Your task to perform on an android device: choose inbox layout in the gmail app Image 0: 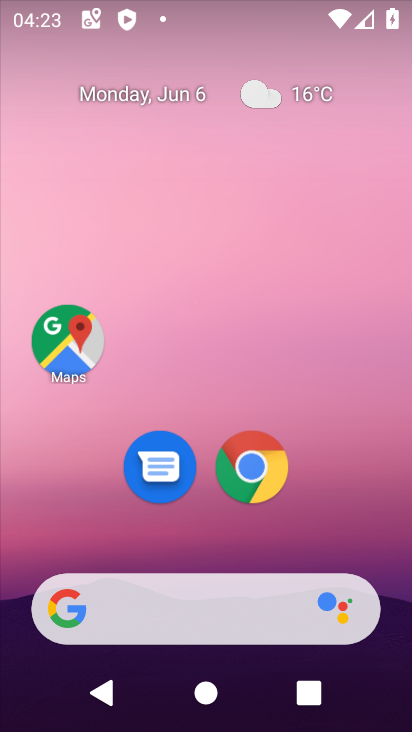
Step 0: press home button
Your task to perform on an android device: choose inbox layout in the gmail app Image 1: 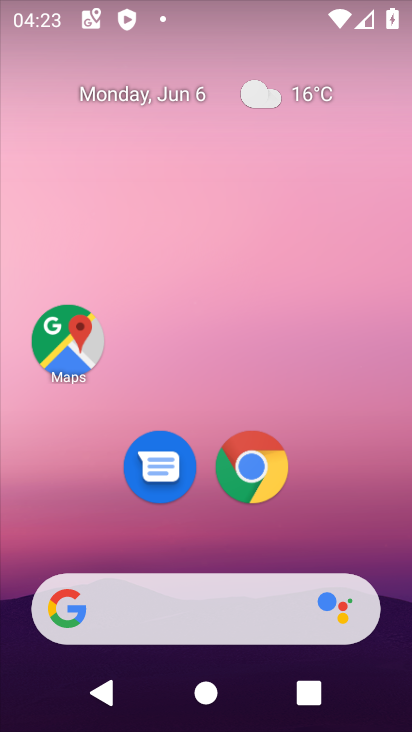
Step 1: drag from (205, 419) to (242, 110)
Your task to perform on an android device: choose inbox layout in the gmail app Image 2: 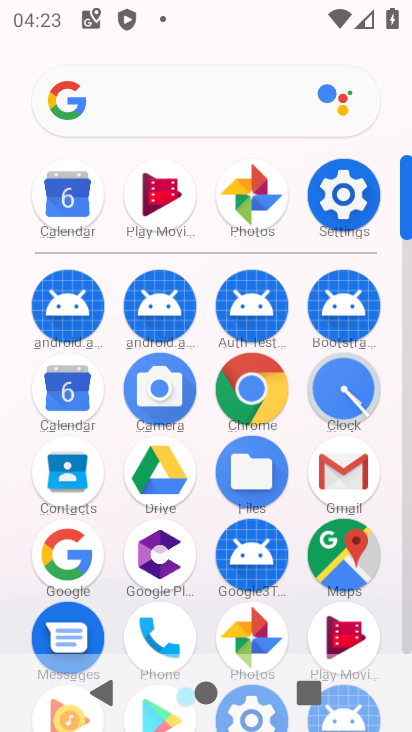
Step 2: click (343, 461)
Your task to perform on an android device: choose inbox layout in the gmail app Image 3: 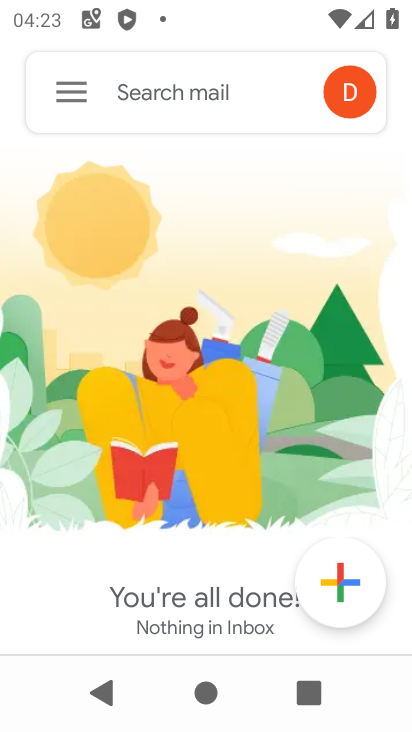
Step 3: click (53, 93)
Your task to perform on an android device: choose inbox layout in the gmail app Image 4: 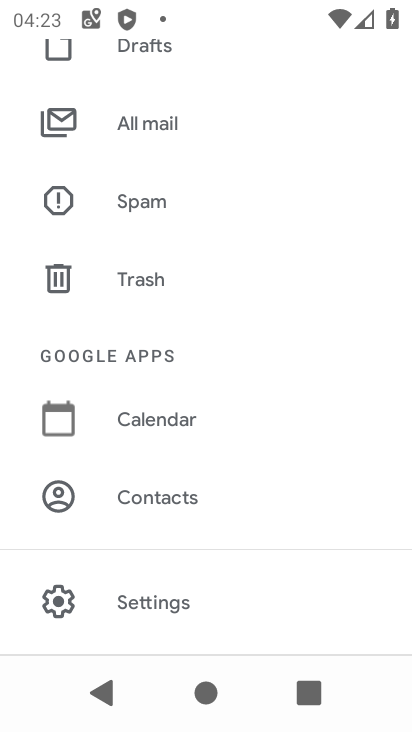
Step 4: click (110, 592)
Your task to perform on an android device: choose inbox layout in the gmail app Image 5: 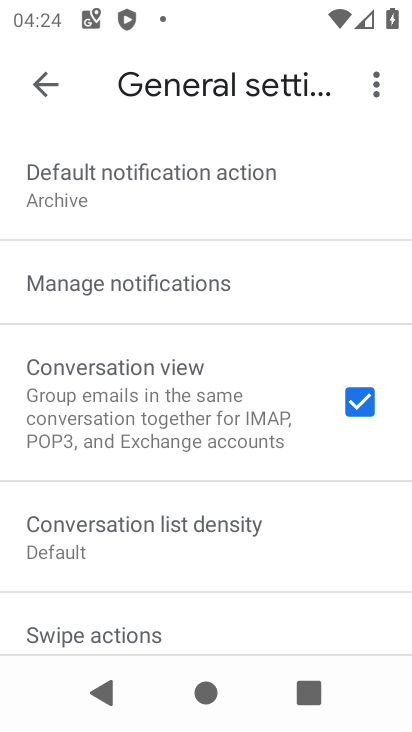
Step 5: click (58, 85)
Your task to perform on an android device: choose inbox layout in the gmail app Image 6: 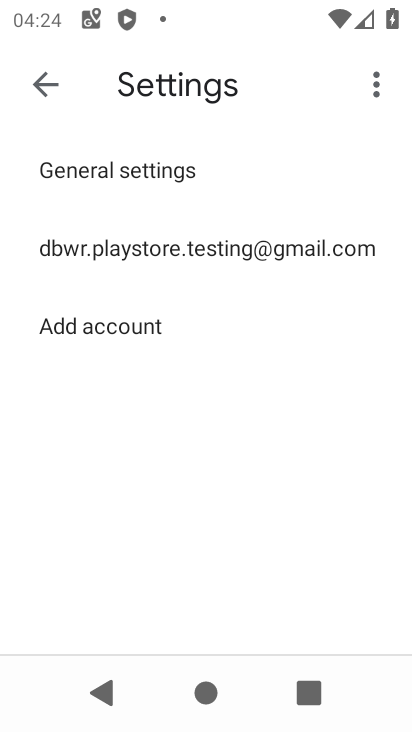
Step 6: click (203, 247)
Your task to perform on an android device: choose inbox layout in the gmail app Image 7: 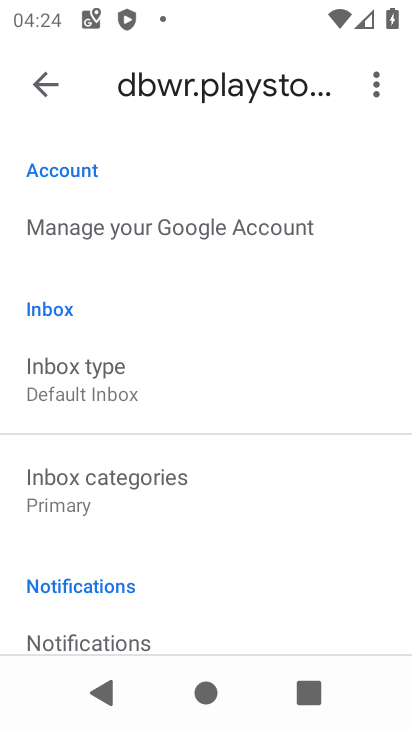
Step 7: click (152, 378)
Your task to perform on an android device: choose inbox layout in the gmail app Image 8: 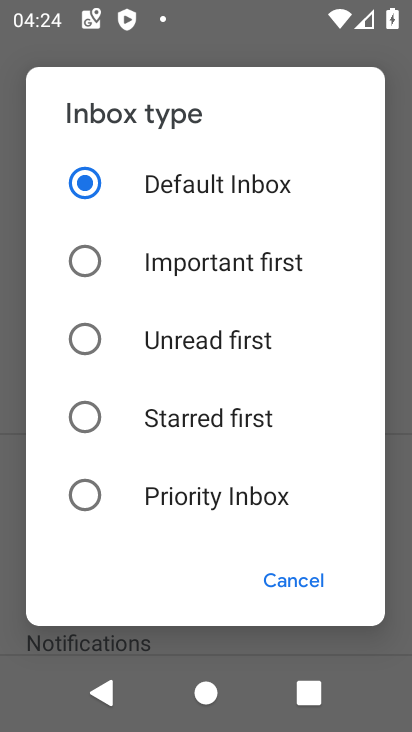
Step 8: click (82, 490)
Your task to perform on an android device: choose inbox layout in the gmail app Image 9: 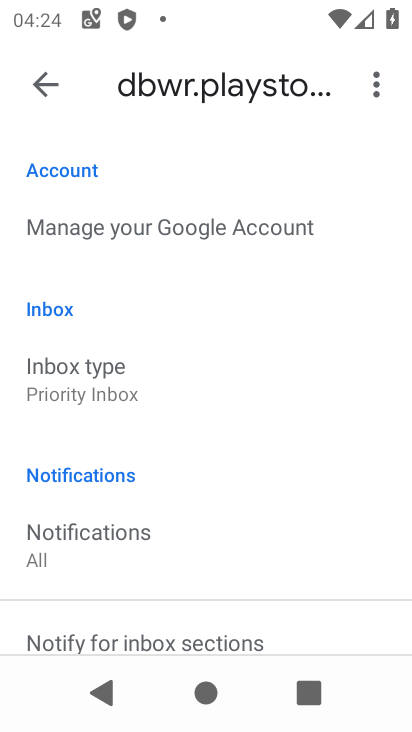
Step 9: task complete